Your task to perform on an android device: Clear the cart on ebay.com. Image 0: 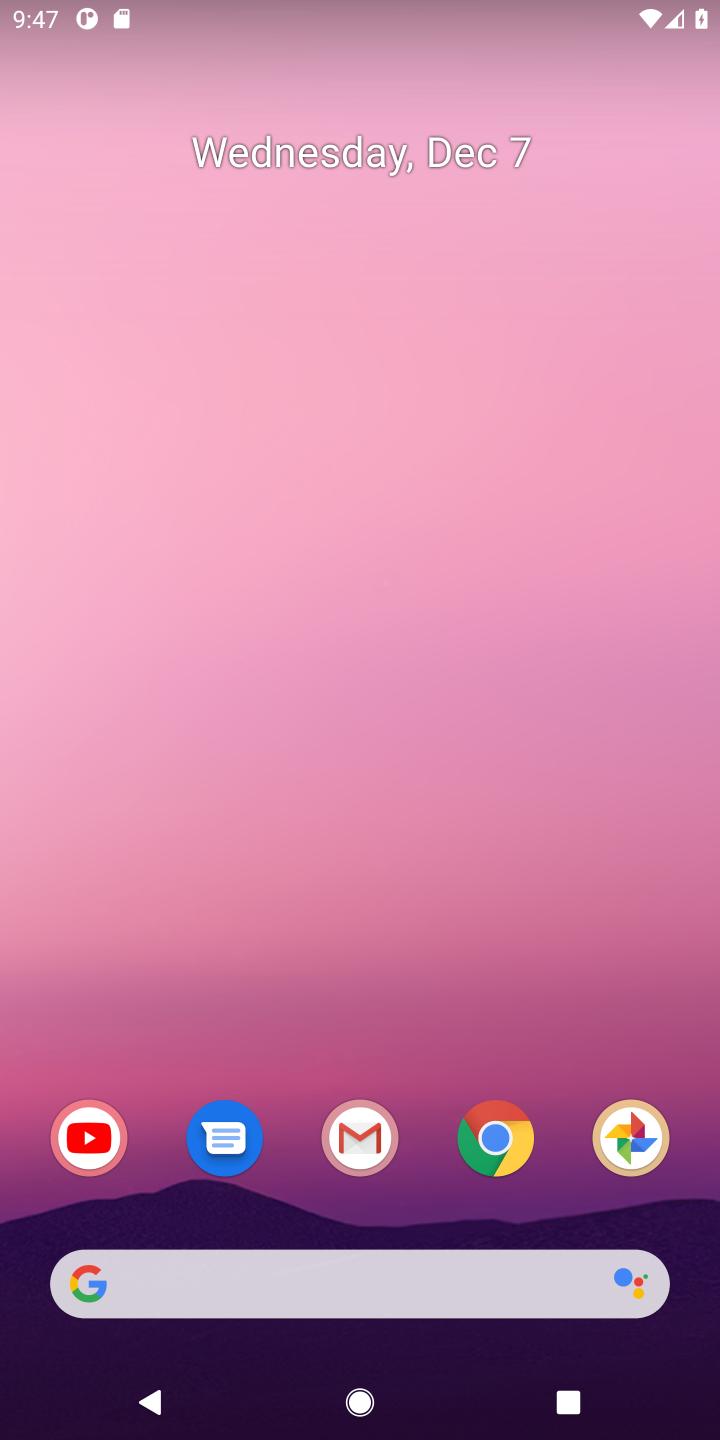
Step 0: click (196, 1288)
Your task to perform on an android device: Clear the cart on ebay.com. Image 1: 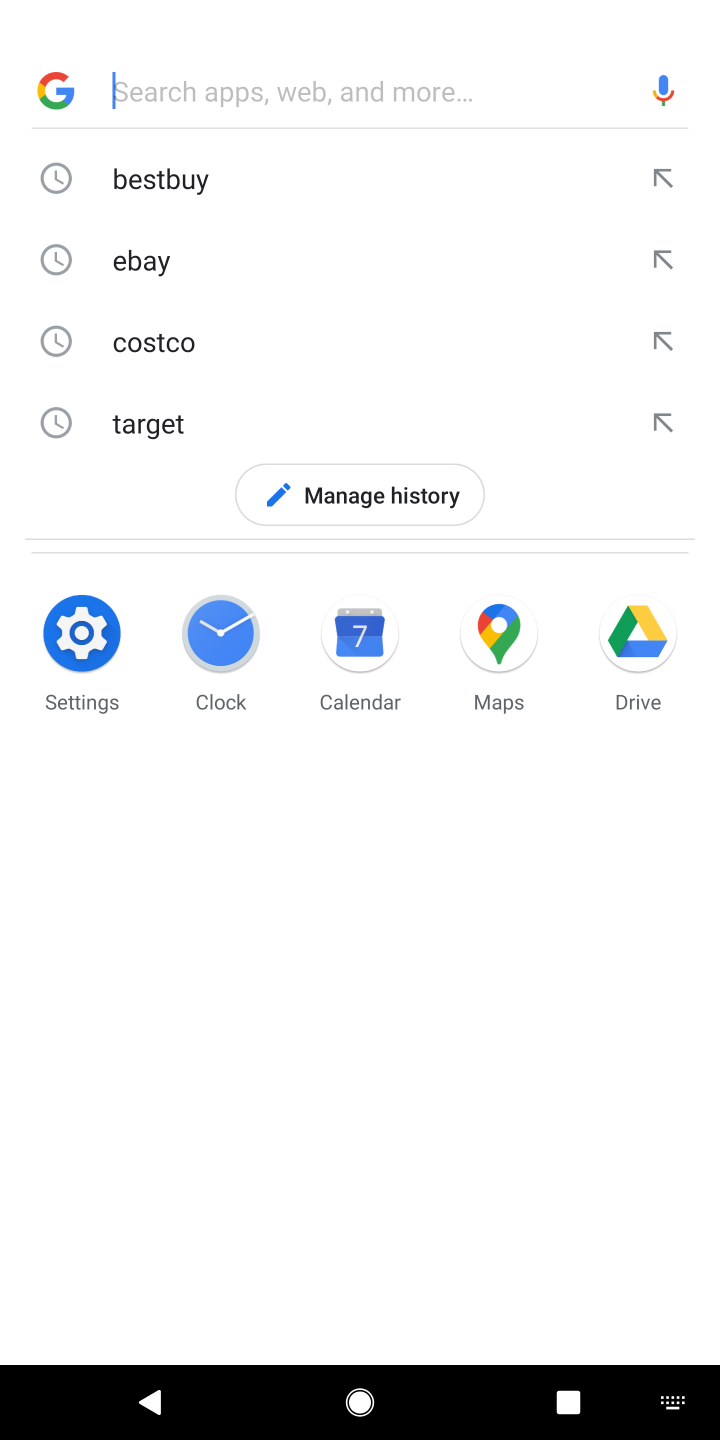
Step 1: type "ebay.com"
Your task to perform on an android device: Clear the cart on ebay.com. Image 2: 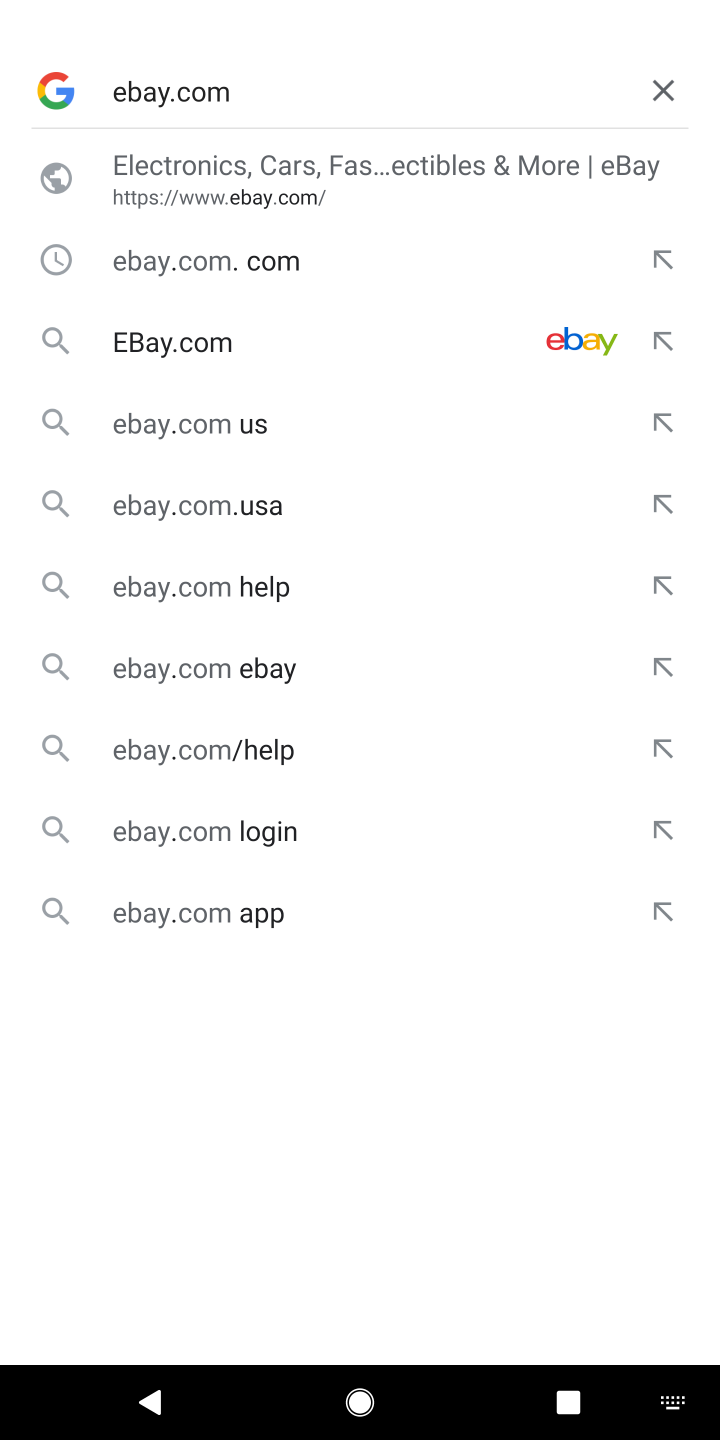
Step 2: press enter
Your task to perform on an android device: Clear the cart on ebay.com. Image 3: 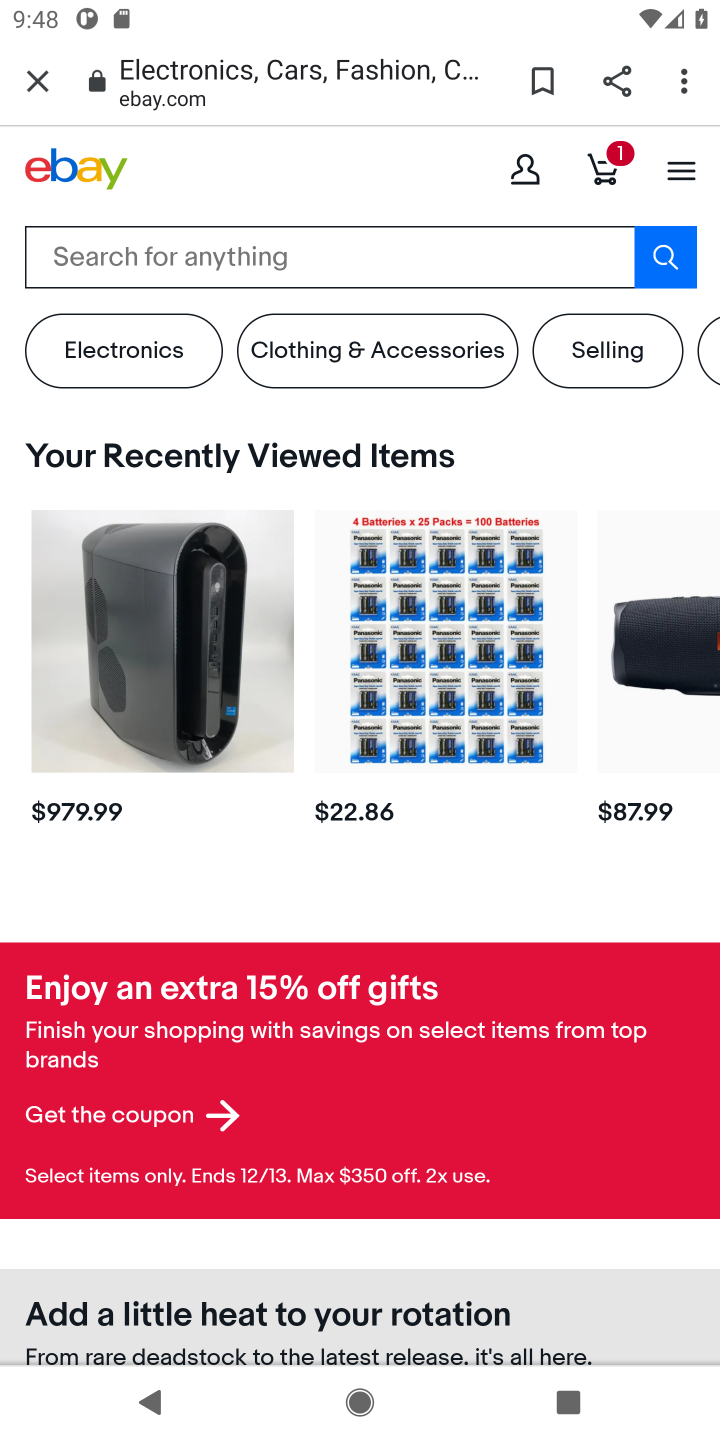
Step 3: click (612, 160)
Your task to perform on an android device: Clear the cart on ebay.com. Image 4: 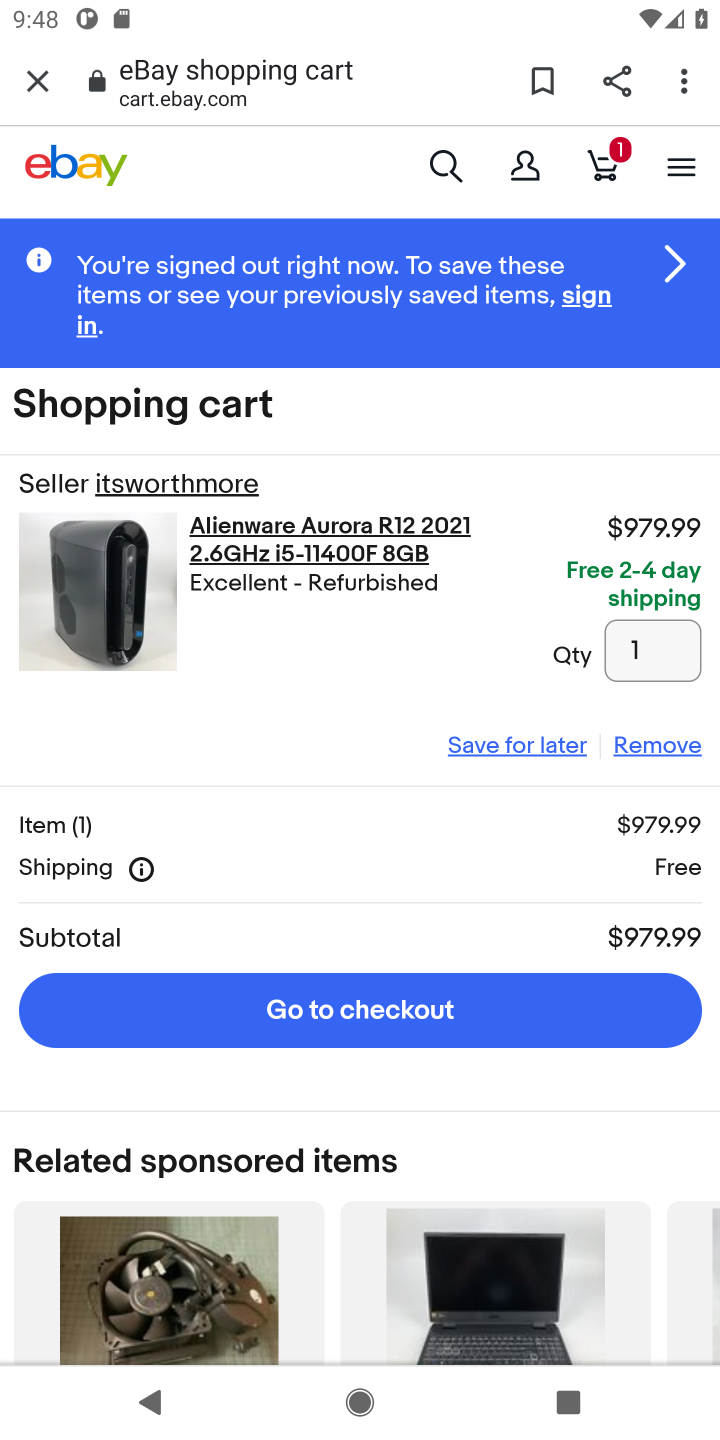
Step 4: click (657, 740)
Your task to perform on an android device: Clear the cart on ebay.com. Image 5: 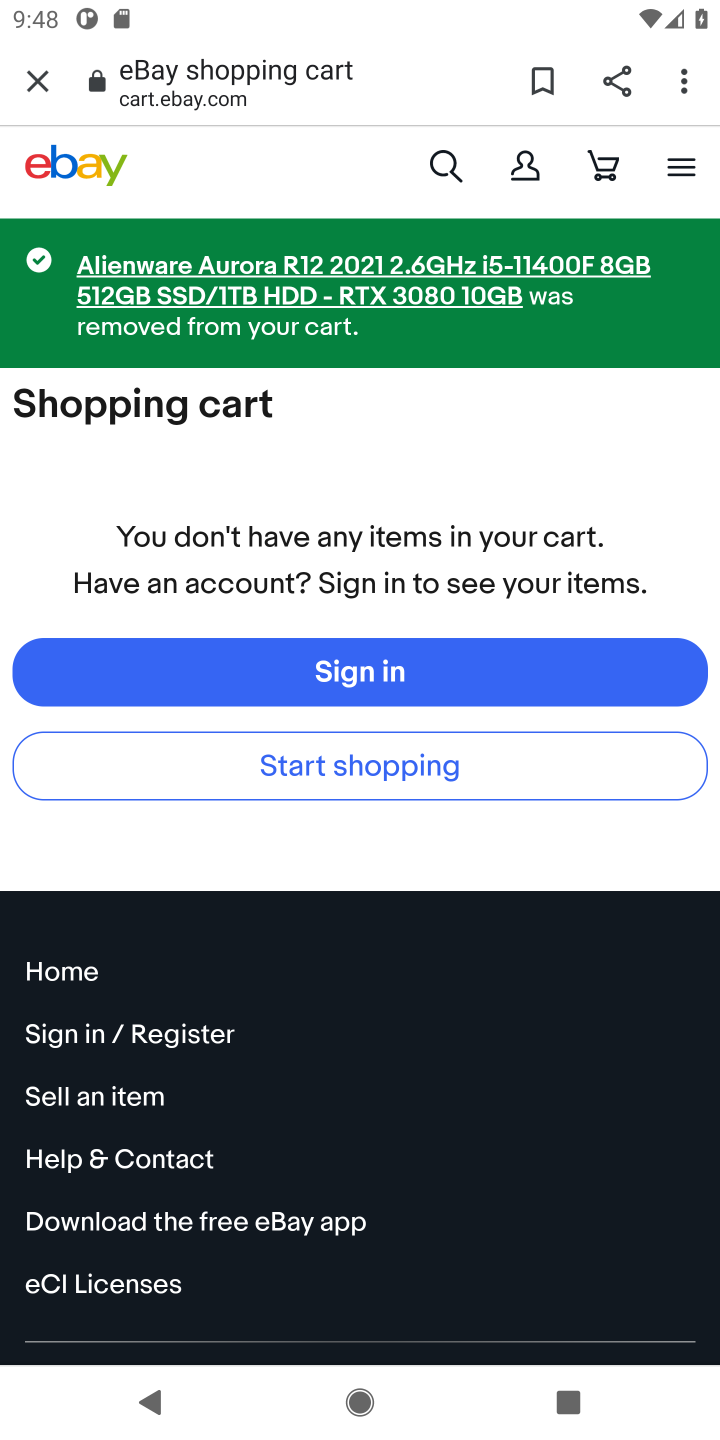
Step 5: task complete